Your task to perform on an android device: Open network settings Image 0: 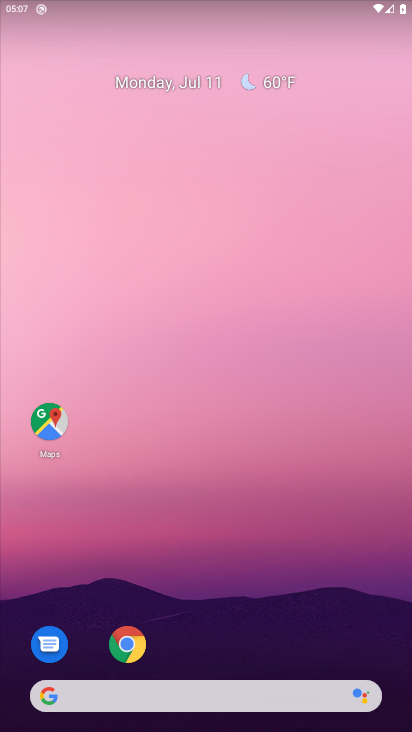
Step 0: drag from (252, 624) to (234, 306)
Your task to perform on an android device: Open network settings Image 1: 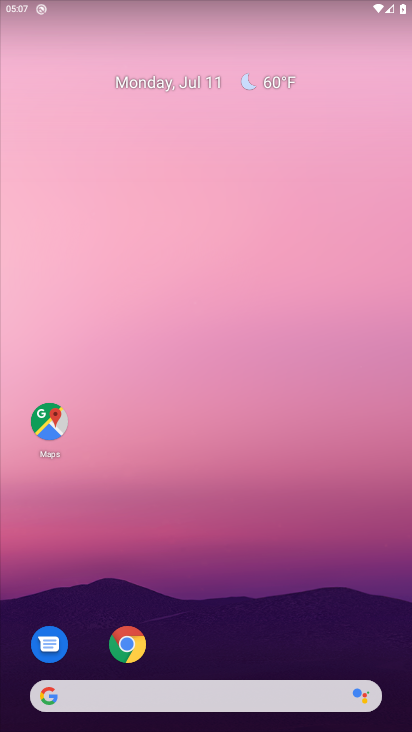
Step 1: drag from (254, 669) to (255, 271)
Your task to perform on an android device: Open network settings Image 2: 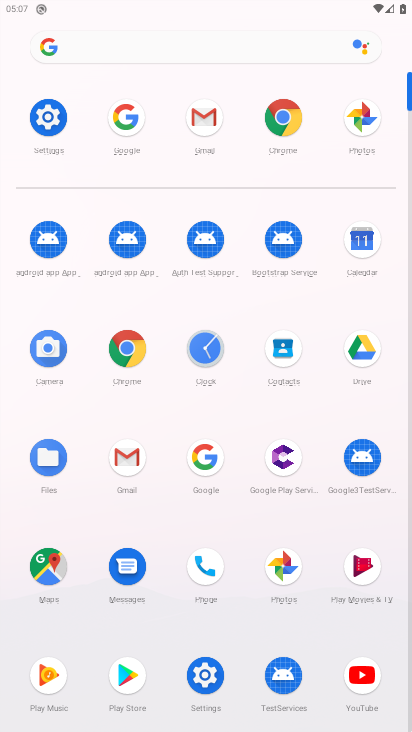
Step 2: click (47, 124)
Your task to perform on an android device: Open network settings Image 3: 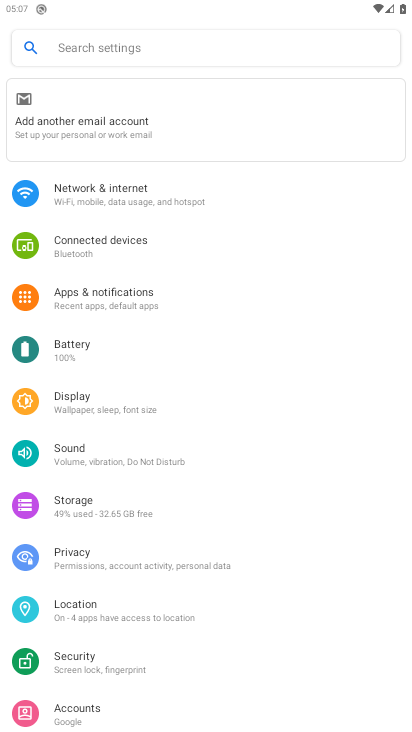
Step 3: click (119, 186)
Your task to perform on an android device: Open network settings Image 4: 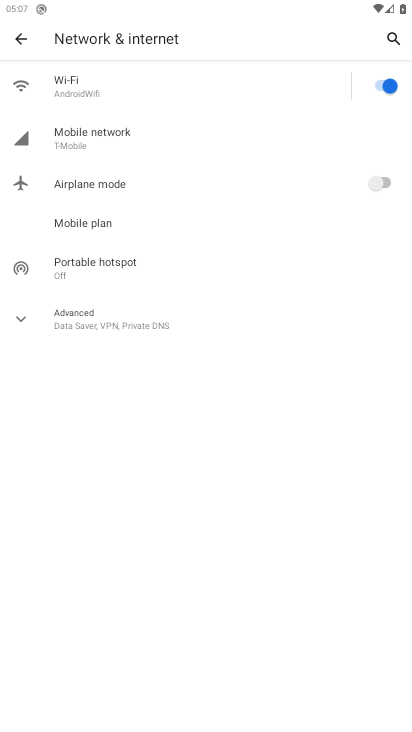
Step 4: click (120, 329)
Your task to perform on an android device: Open network settings Image 5: 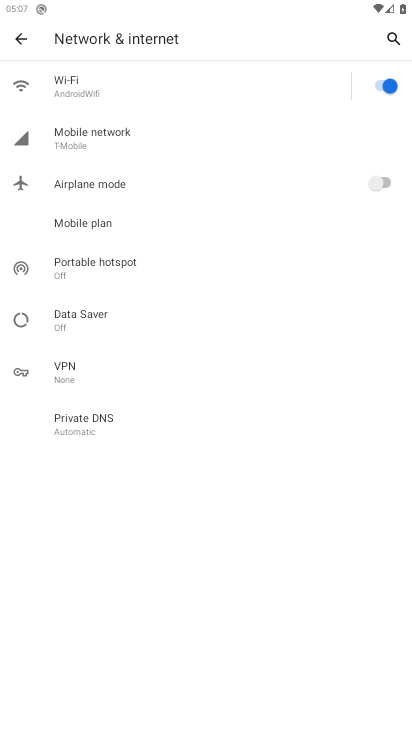
Step 5: task complete